Your task to perform on an android device: View the shopping cart on costco. Add "duracell triple a" to the cart on costco Image 0: 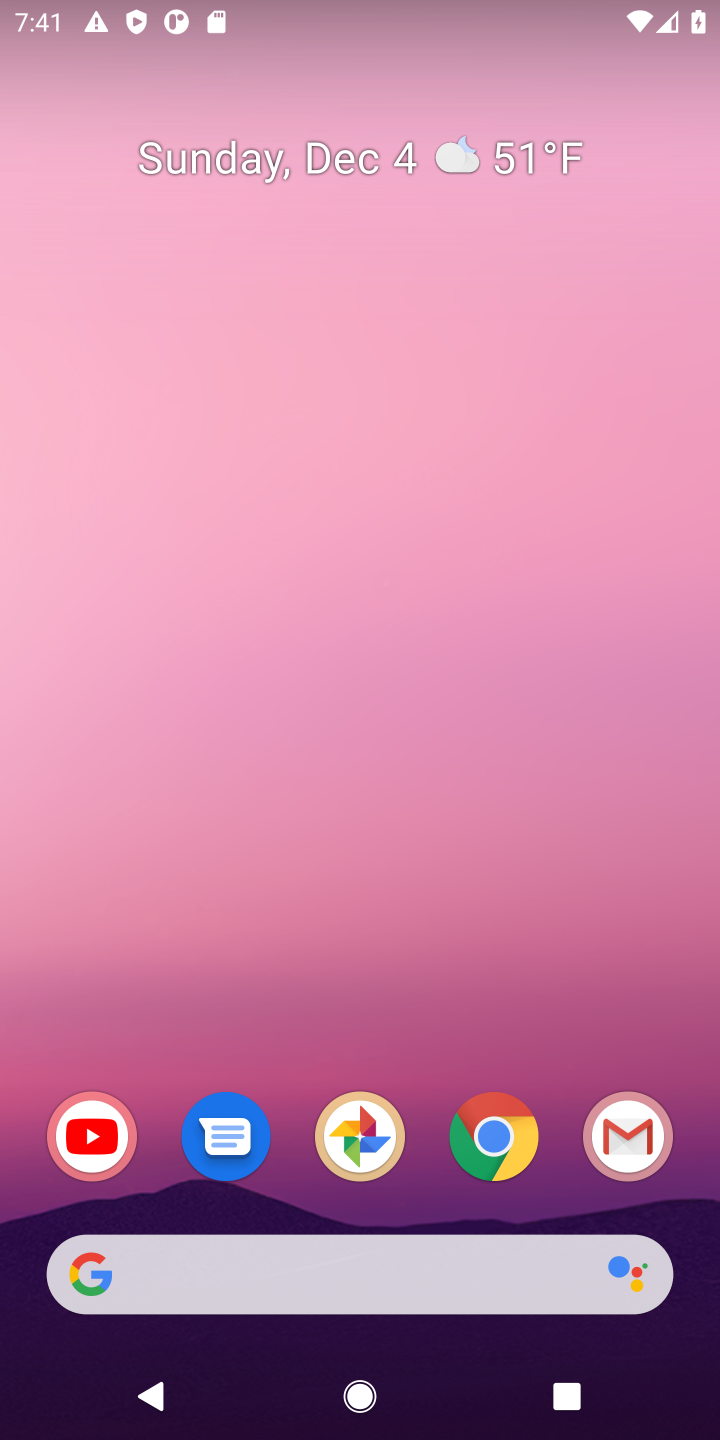
Step 0: click (497, 1156)
Your task to perform on an android device: View the shopping cart on costco. Add "duracell triple a" to the cart on costco Image 1: 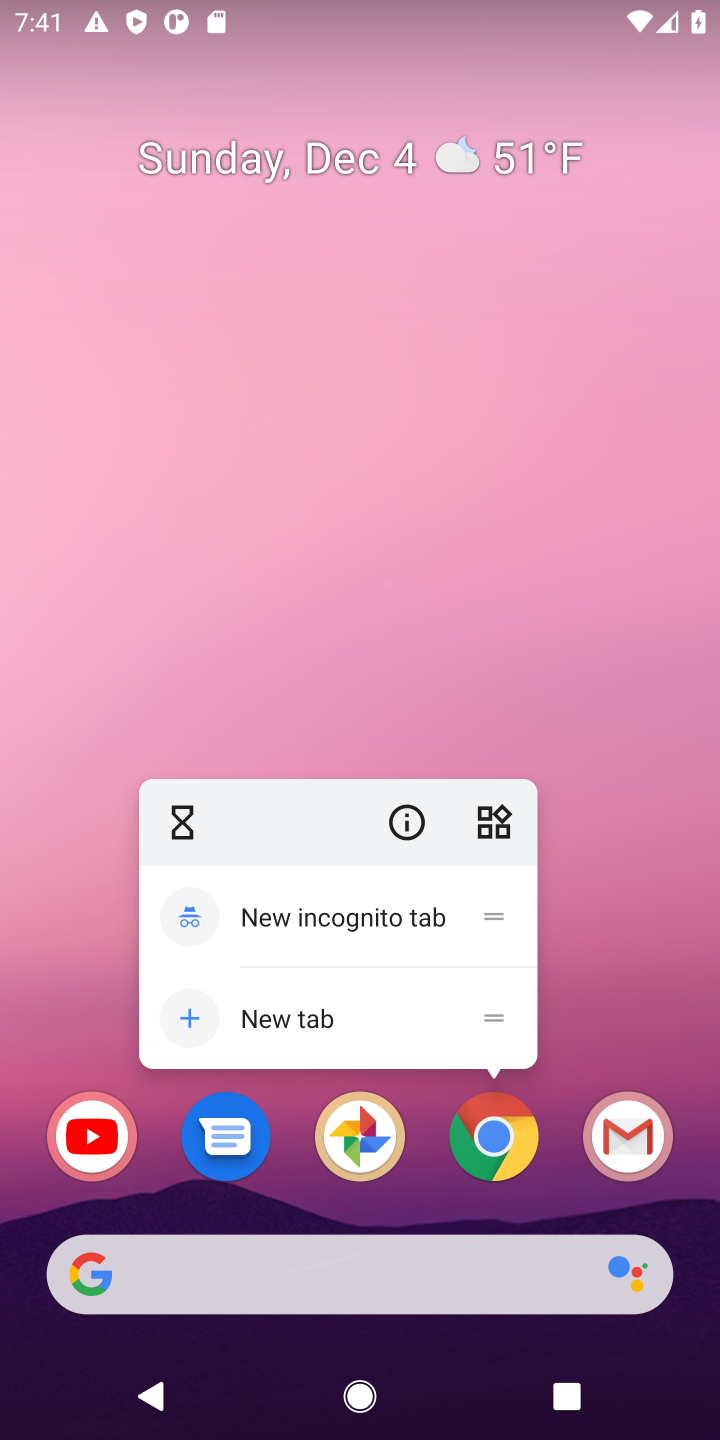
Step 1: click (497, 1156)
Your task to perform on an android device: View the shopping cart on costco. Add "duracell triple a" to the cart on costco Image 2: 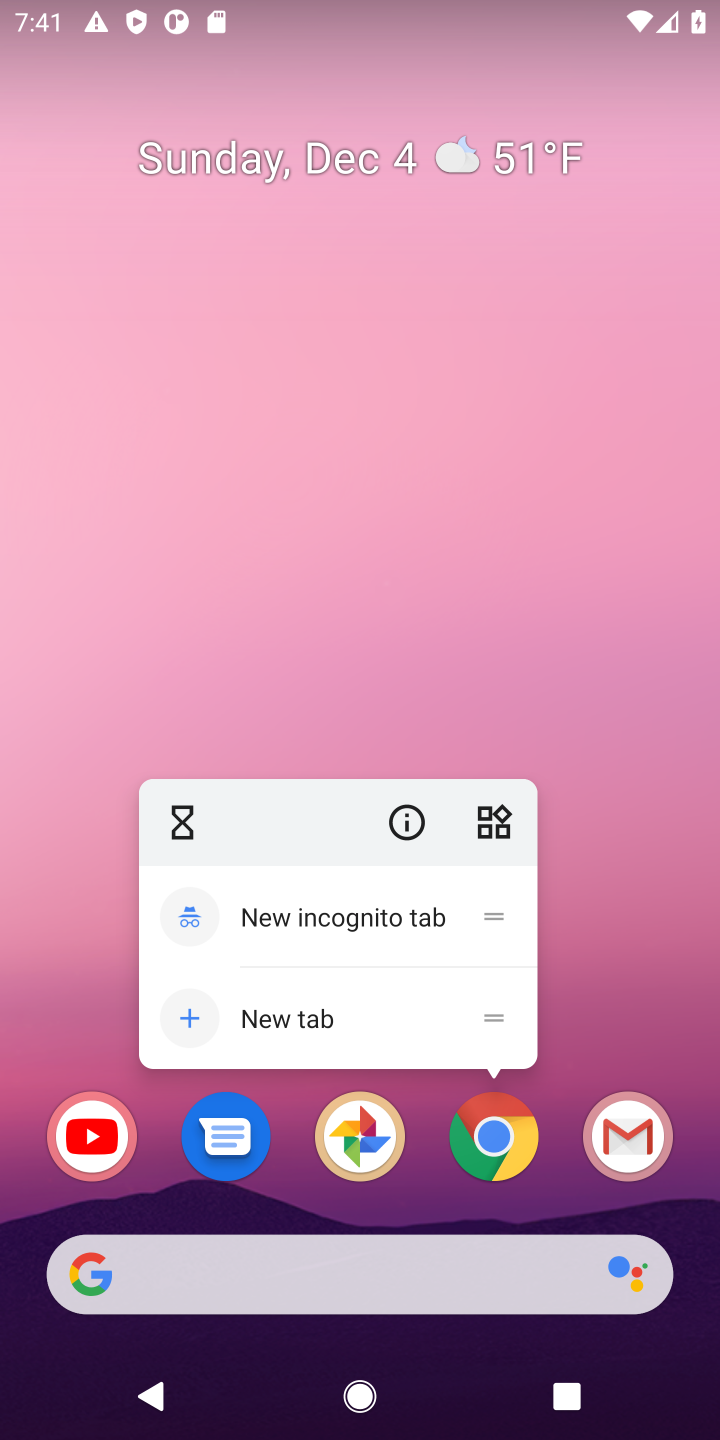
Step 2: click (497, 1156)
Your task to perform on an android device: View the shopping cart on costco. Add "duracell triple a" to the cart on costco Image 3: 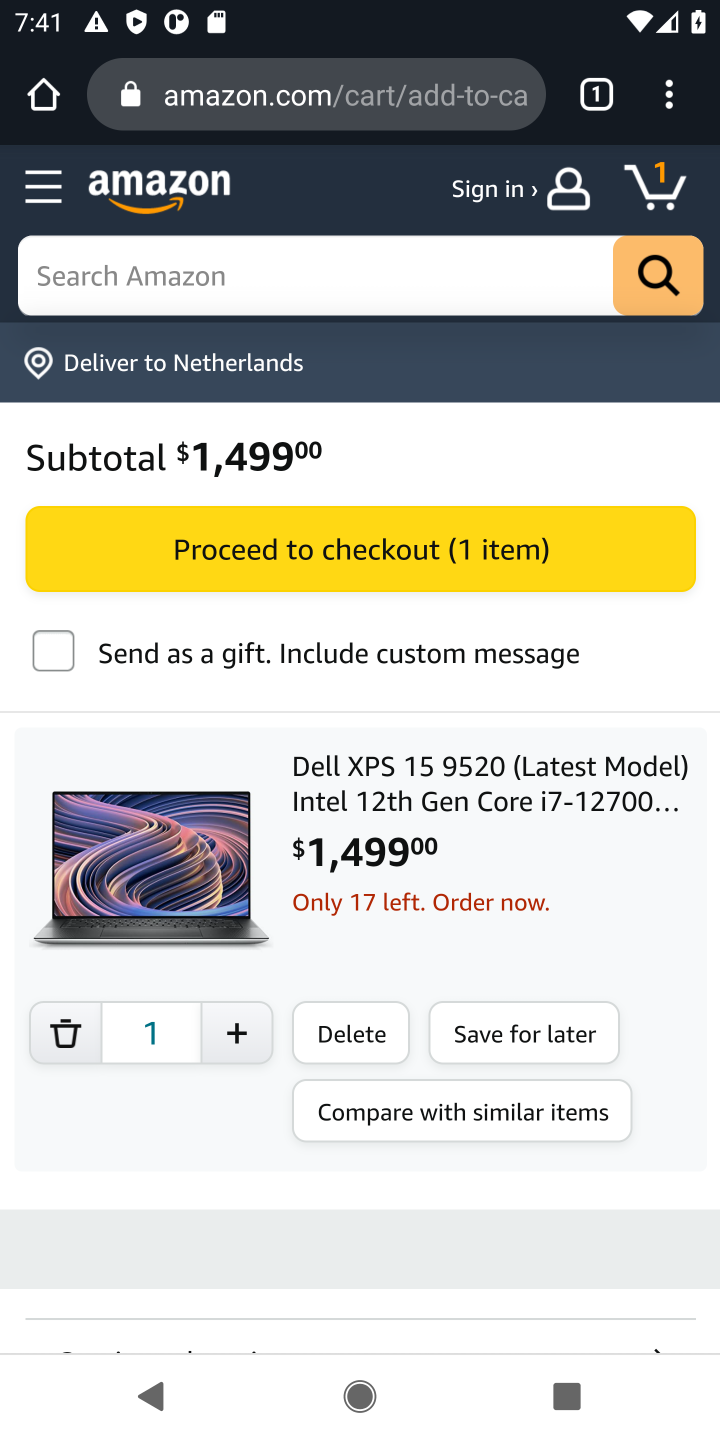
Step 3: click (299, 103)
Your task to perform on an android device: View the shopping cart on costco. Add "duracell triple a" to the cart on costco Image 4: 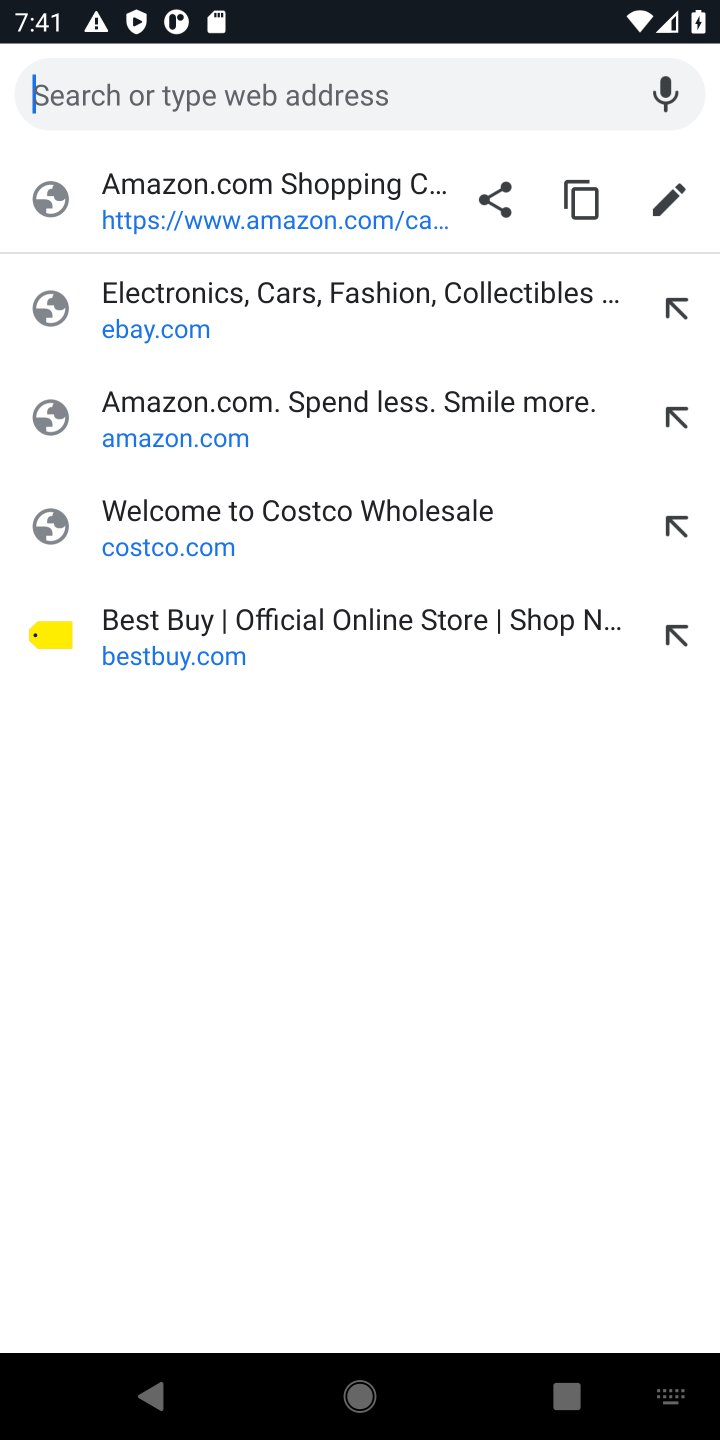
Step 4: click (287, 530)
Your task to perform on an android device: View the shopping cart on costco. Add "duracell triple a" to the cart on costco Image 5: 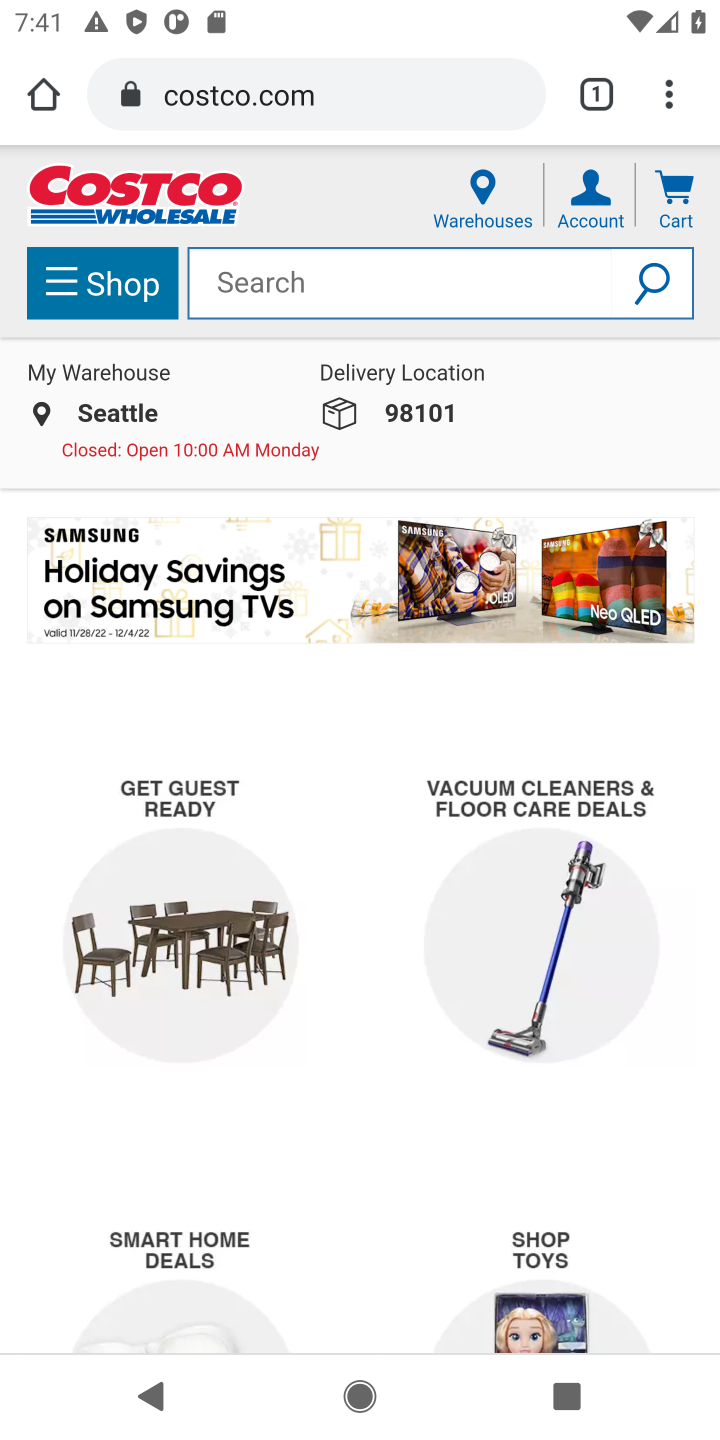
Step 5: click (679, 207)
Your task to perform on an android device: View the shopping cart on costco. Add "duracell triple a" to the cart on costco Image 6: 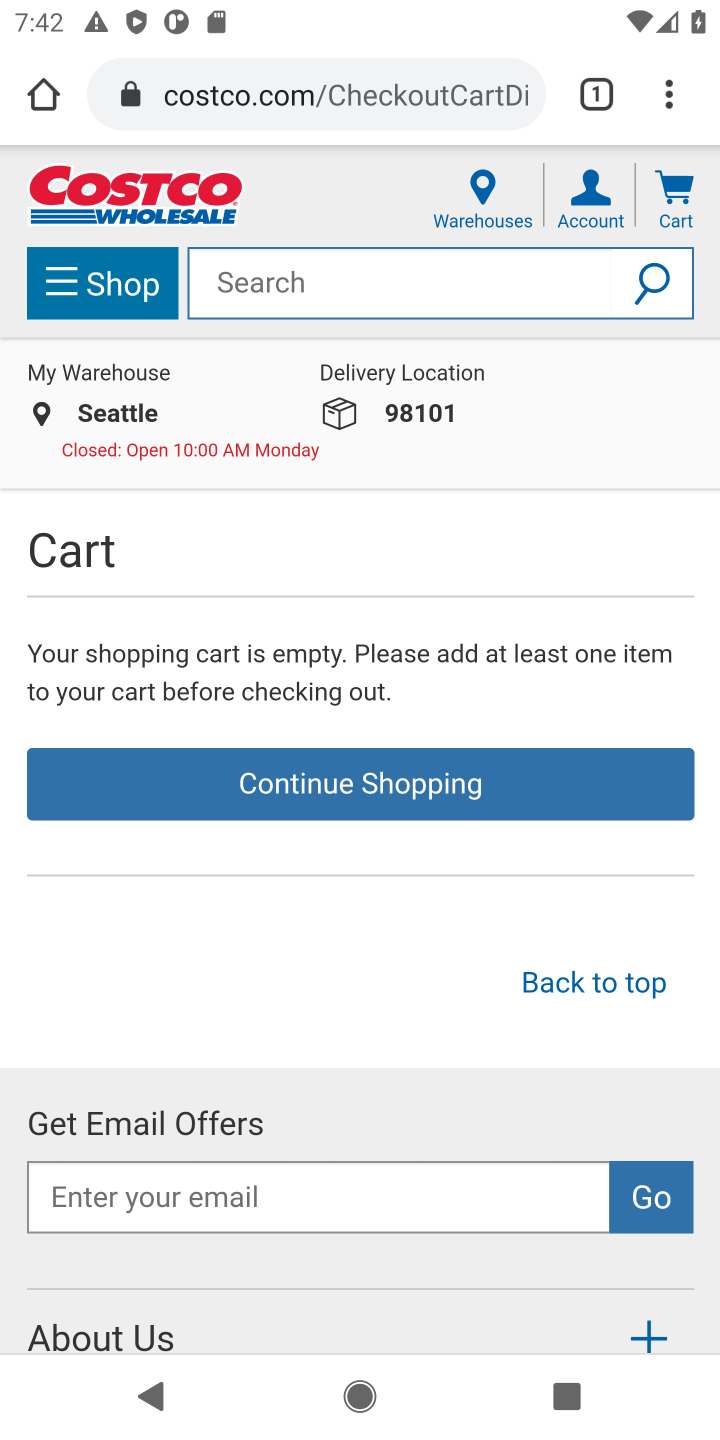
Step 6: click (484, 301)
Your task to perform on an android device: View the shopping cart on costco. Add "duracell triple a" to the cart on costco Image 7: 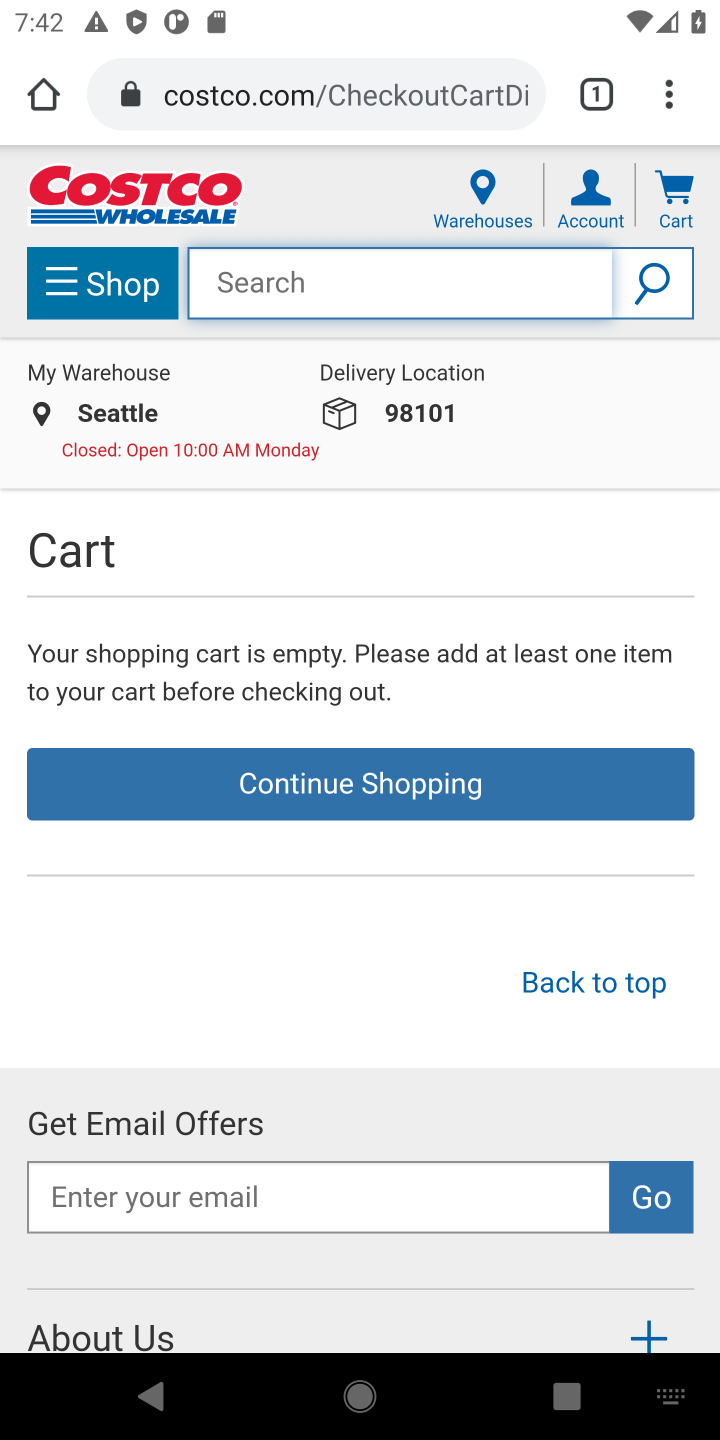
Step 7: type "duracell triple a"
Your task to perform on an android device: View the shopping cart on costco. Add "duracell triple a" to the cart on costco Image 8: 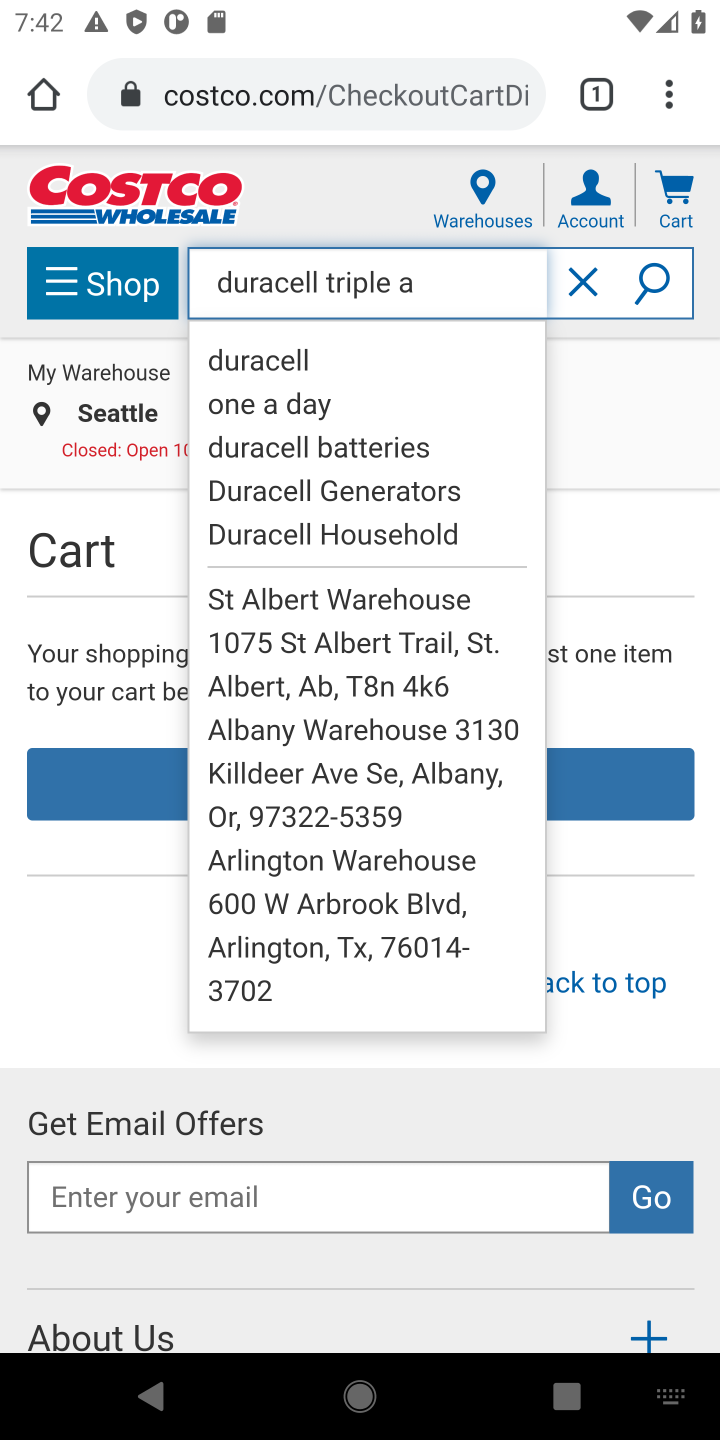
Step 8: click (668, 277)
Your task to perform on an android device: View the shopping cart on costco. Add "duracell triple a" to the cart on costco Image 9: 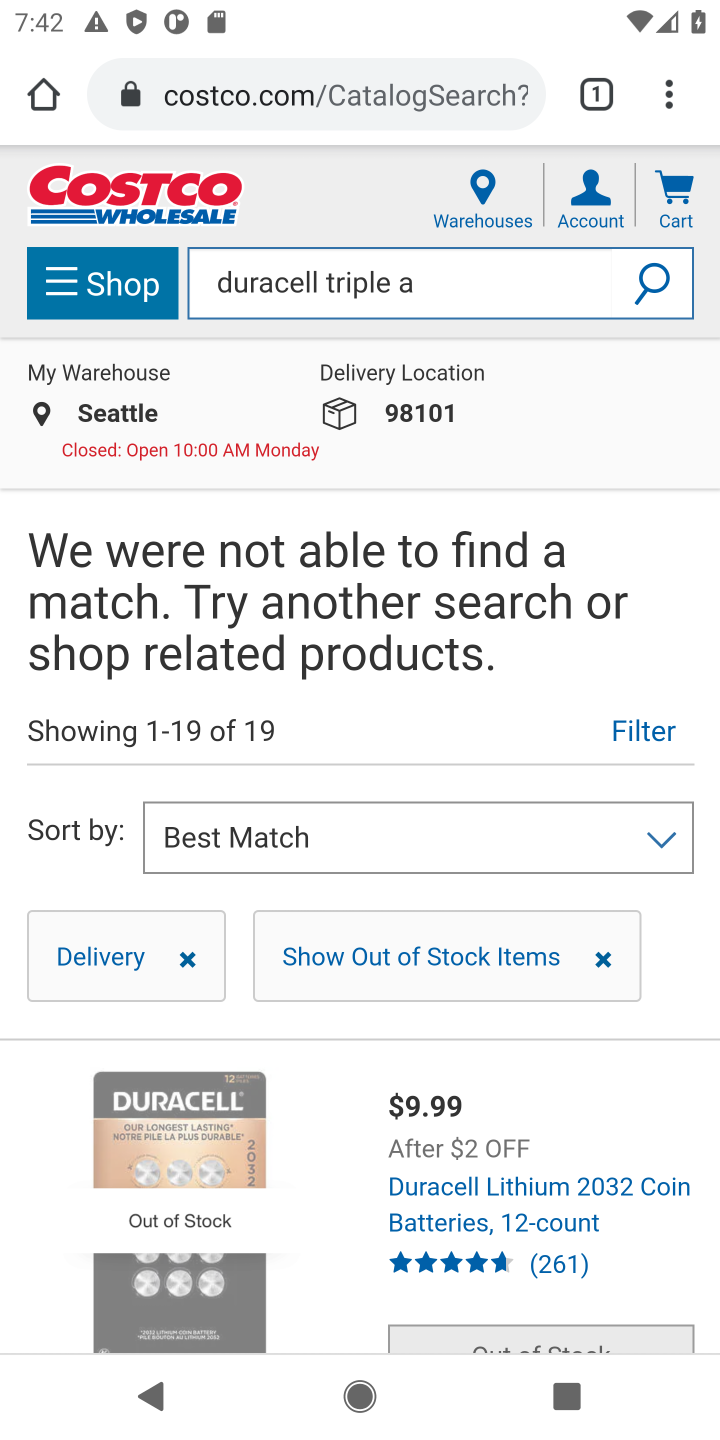
Step 9: task complete